Your task to perform on an android device: Go to Maps Image 0: 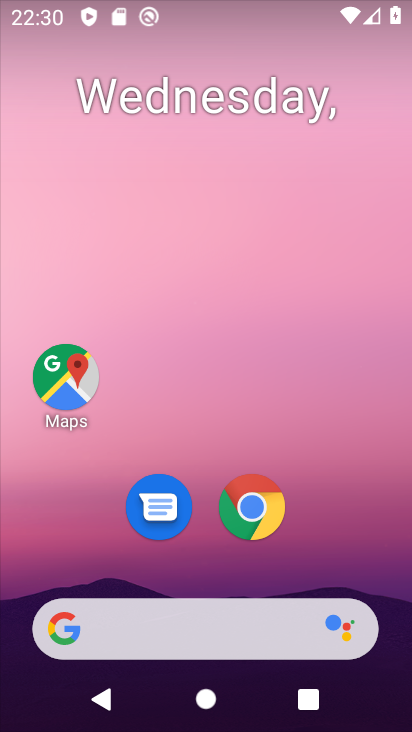
Step 0: drag from (315, 476) to (291, 288)
Your task to perform on an android device: Go to Maps Image 1: 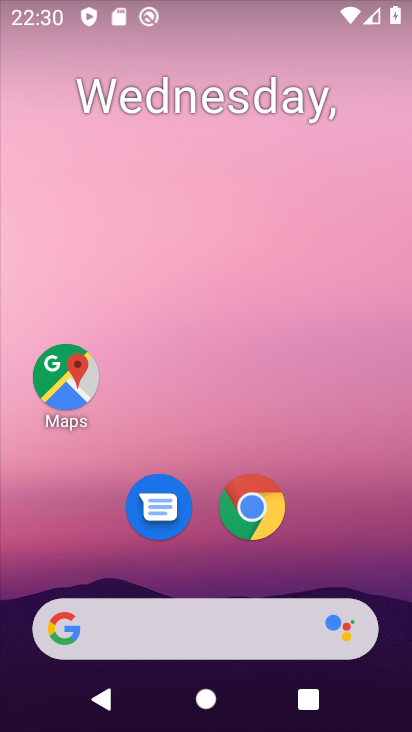
Step 1: drag from (330, 508) to (304, 238)
Your task to perform on an android device: Go to Maps Image 2: 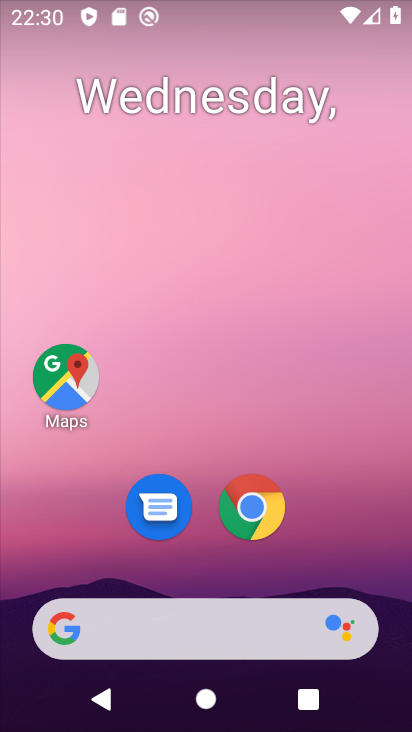
Step 2: drag from (307, 455) to (280, 201)
Your task to perform on an android device: Go to Maps Image 3: 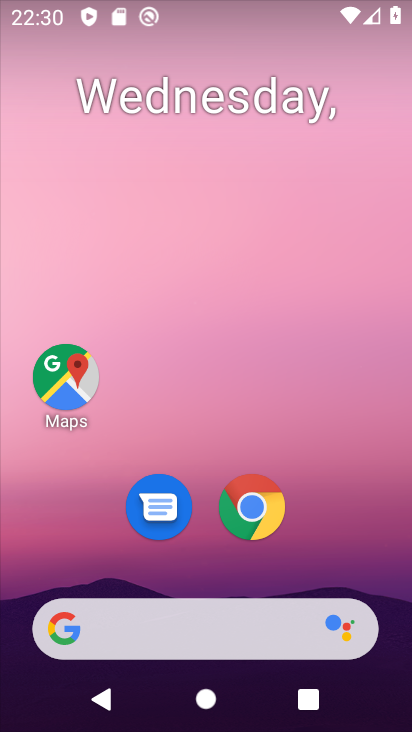
Step 3: click (58, 367)
Your task to perform on an android device: Go to Maps Image 4: 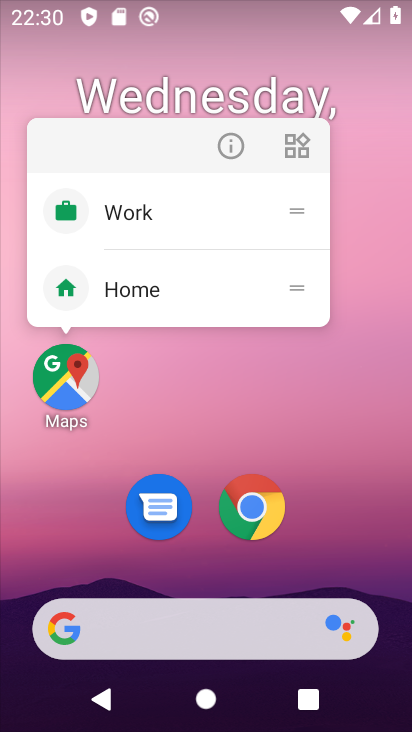
Step 4: click (65, 364)
Your task to perform on an android device: Go to Maps Image 5: 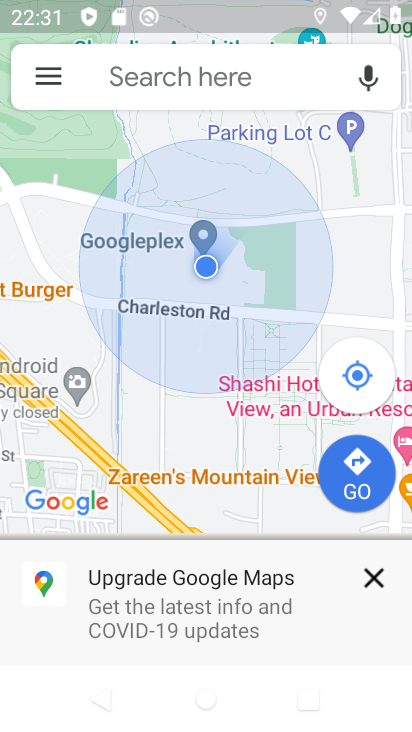
Step 5: task complete